Your task to perform on an android device: turn pop-ups off in chrome Image 0: 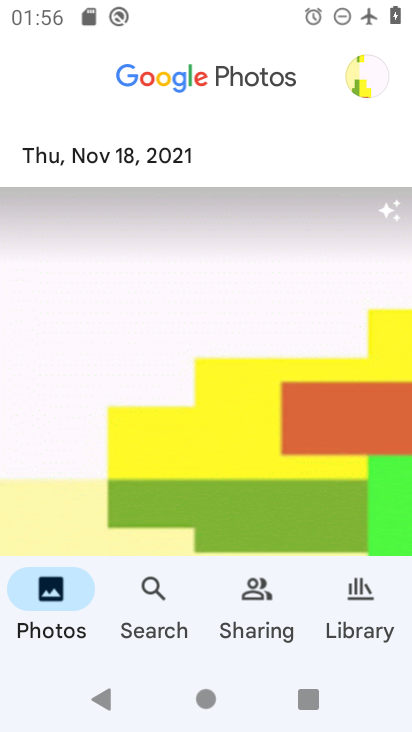
Step 0: press home button
Your task to perform on an android device: turn pop-ups off in chrome Image 1: 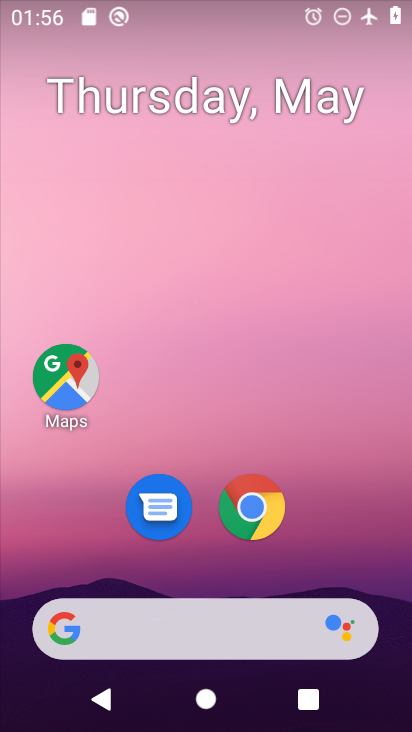
Step 1: click (240, 504)
Your task to perform on an android device: turn pop-ups off in chrome Image 2: 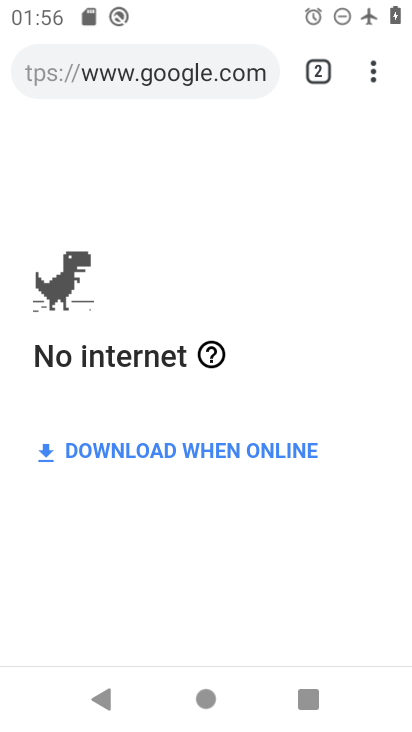
Step 2: click (382, 79)
Your task to perform on an android device: turn pop-ups off in chrome Image 3: 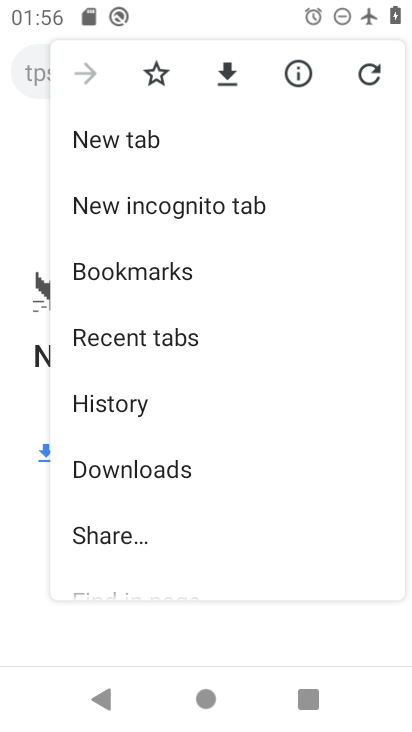
Step 3: drag from (316, 503) to (326, 342)
Your task to perform on an android device: turn pop-ups off in chrome Image 4: 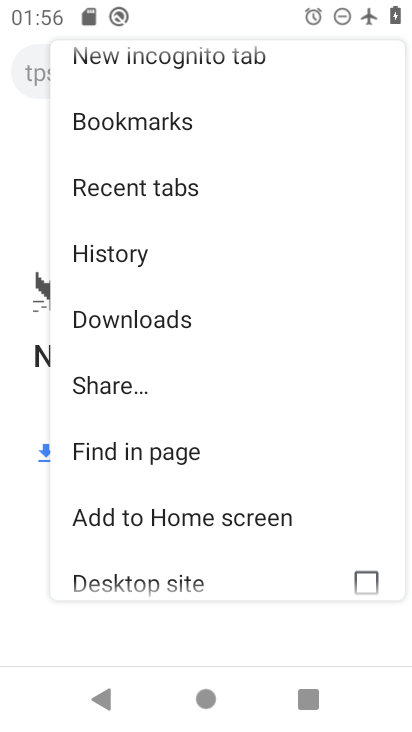
Step 4: drag from (267, 477) to (262, 243)
Your task to perform on an android device: turn pop-ups off in chrome Image 5: 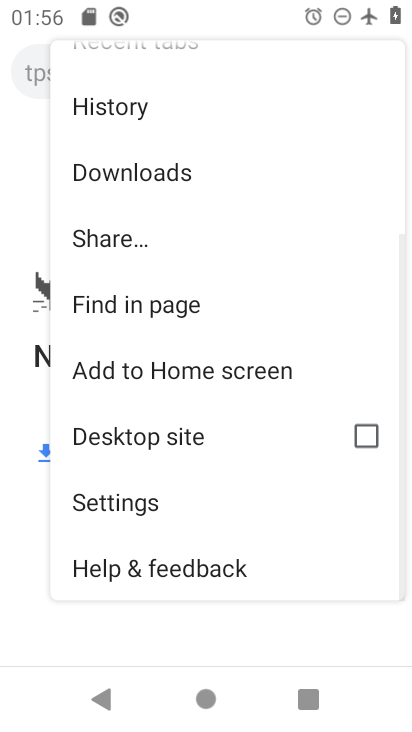
Step 5: click (227, 498)
Your task to perform on an android device: turn pop-ups off in chrome Image 6: 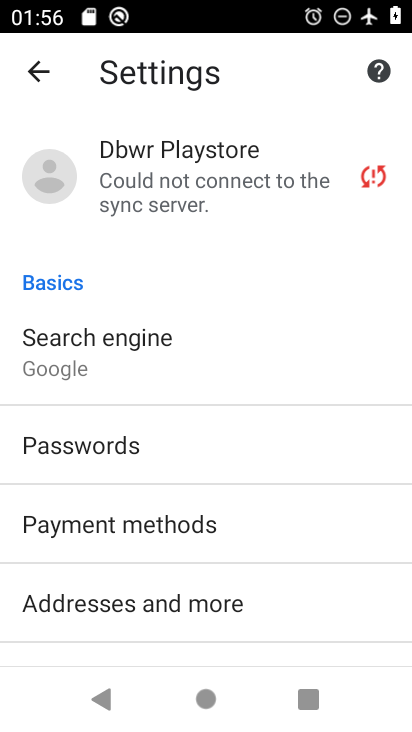
Step 6: drag from (227, 631) to (224, 171)
Your task to perform on an android device: turn pop-ups off in chrome Image 7: 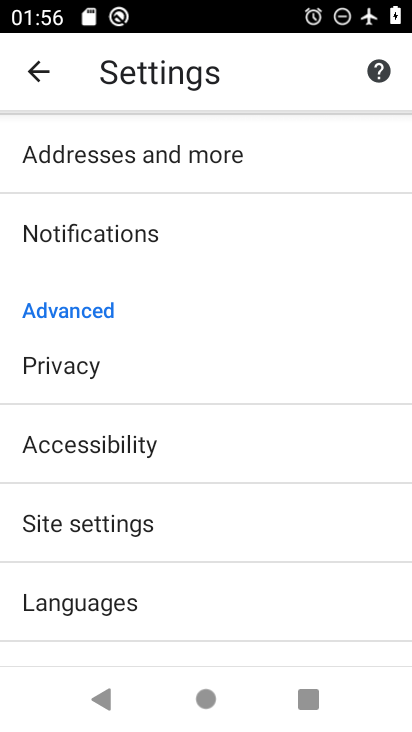
Step 7: click (216, 529)
Your task to perform on an android device: turn pop-ups off in chrome Image 8: 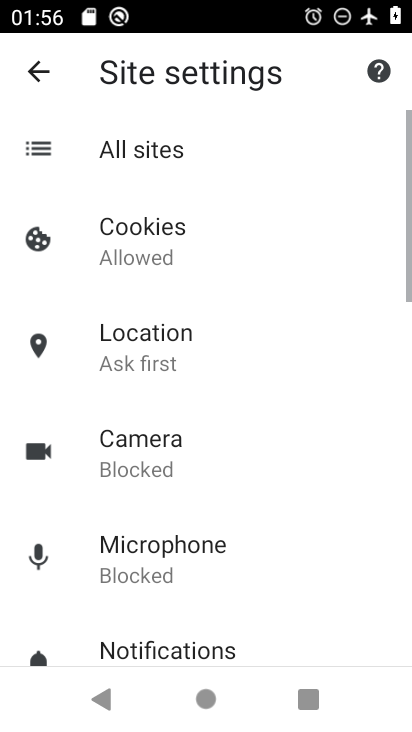
Step 8: drag from (197, 568) to (197, 186)
Your task to perform on an android device: turn pop-ups off in chrome Image 9: 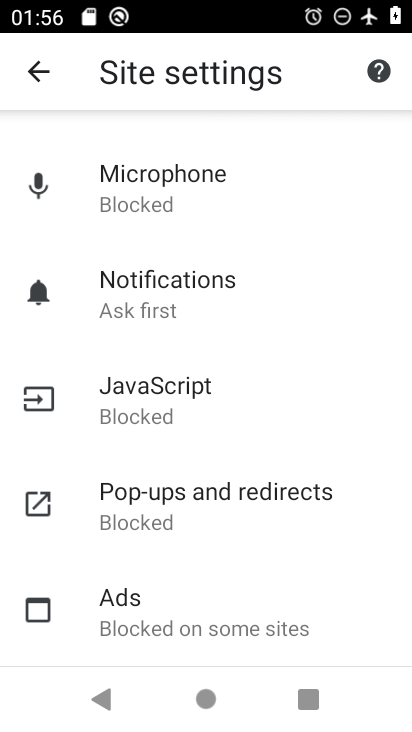
Step 9: click (240, 504)
Your task to perform on an android device: turn pop-ups off in chrome Image 10: 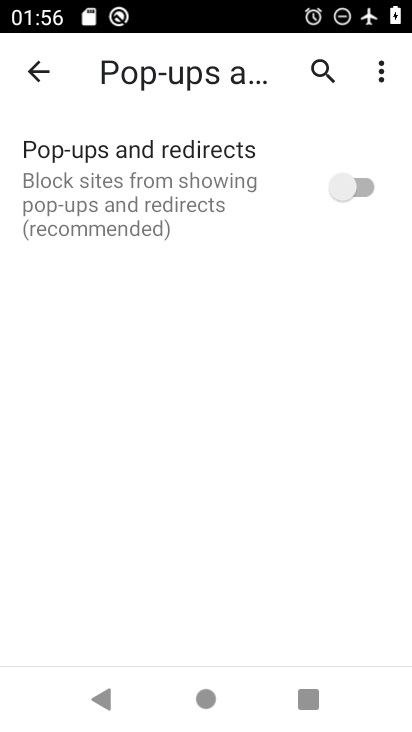
Step 10: click (180, 156)
Your task to perform on an android device: turn pop-ups off in chrome Image 11: 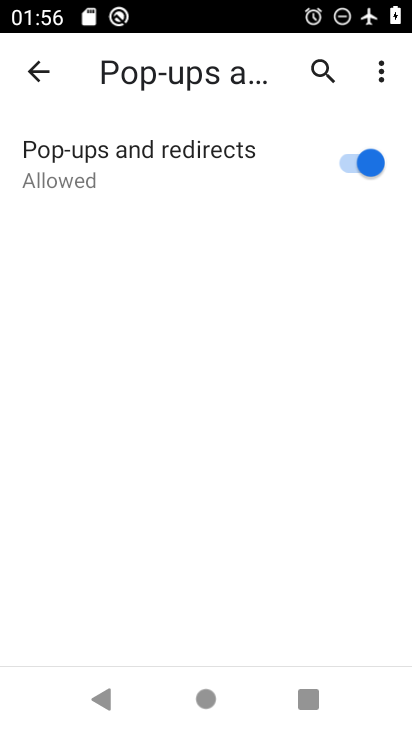
Step 11: task complete